Your task to perform on an android device: Go to wifi settings Image 0: 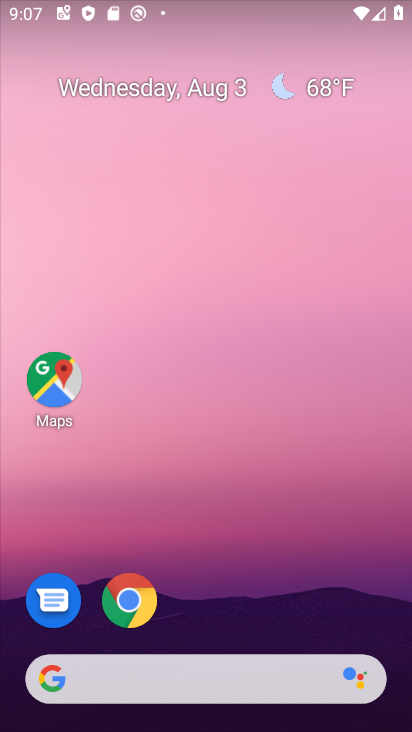
Step 0: drag from (217, 627) to (248, 112)
Your task to perform on an android device: Go to wifi settings Image 1: 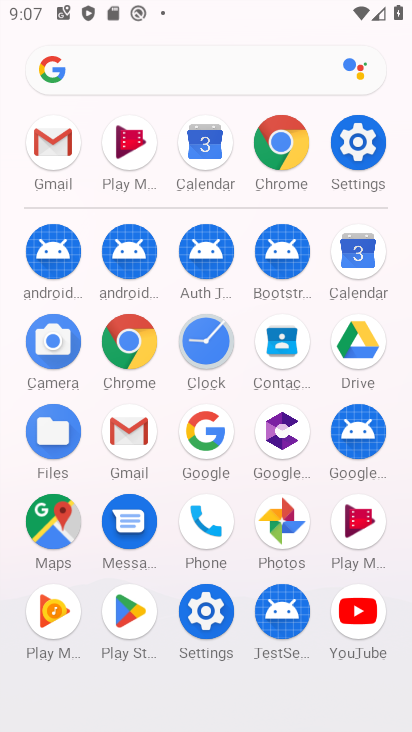
Step 1: click (210, 612)
Your task to perform on an android device: Go to wifi settings Image 2: 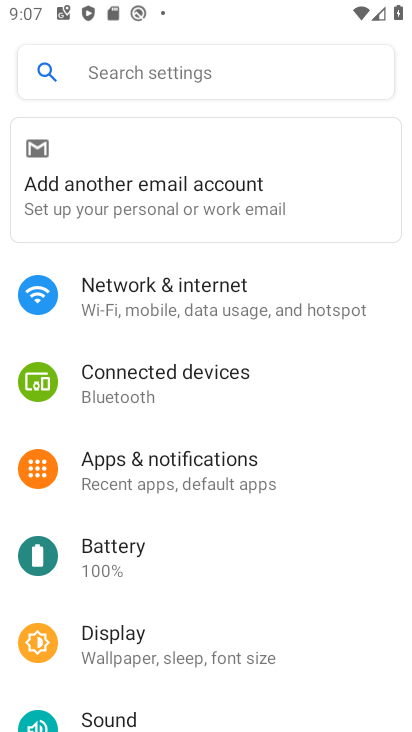
Step 2: click (177, 309)
Your task to perform on an android device: Go to wifi settings Image 3: 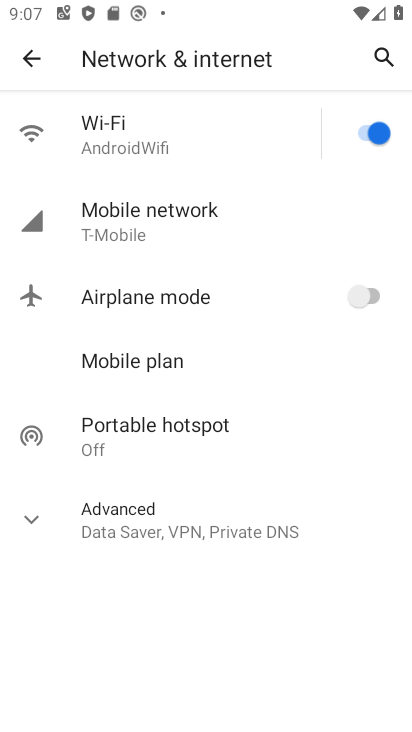
Step 3: click (149, 140)
Your task to perform on an android device: Go to wifi settings Image 4: 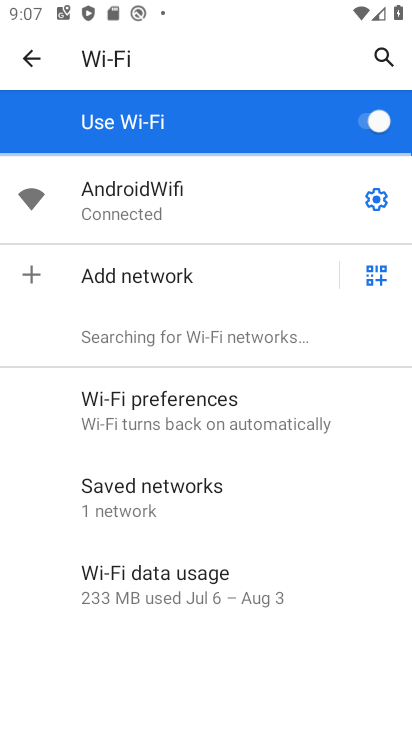
Step 4: task complete